Your task to perform on an android device: Open Maps and search for coffee Image 0: 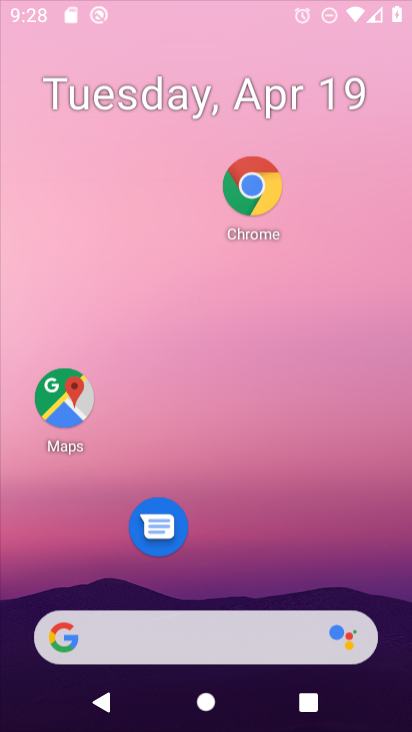
Step 0: click (266, 216)
Your task to perform on an android device: Open Maps and search for coffee Image 1: 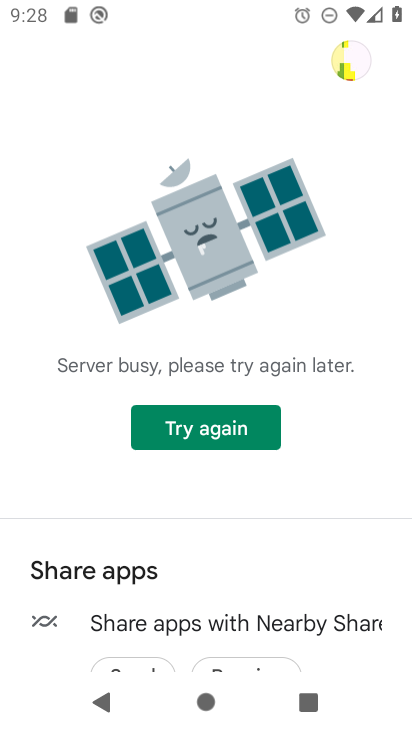
Step 1: press home button
Your task to perform on an android device: Open Maps and search for coffee Image 2: 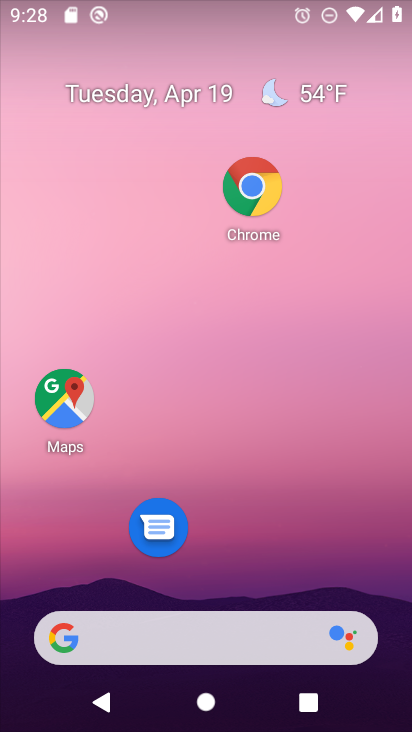
Step 2: drag from (230, 573) to (238, 99)
Your task to perform on an android device: Open Maps and search for coffee Image 3: 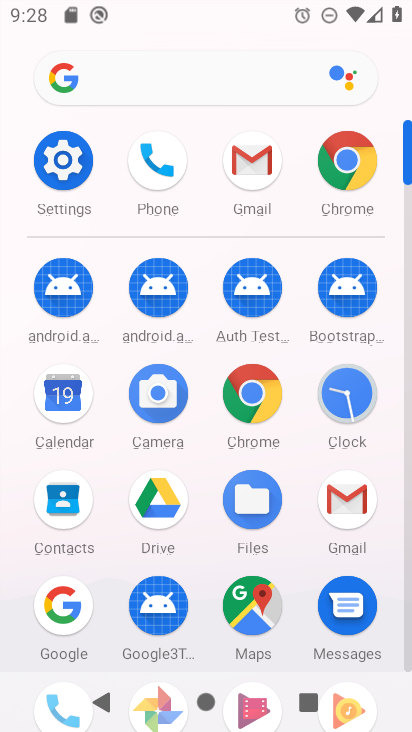
Step 3: click (244, 607)
Your task to perform on an android device: Open Maps and search for coffee Image 4: 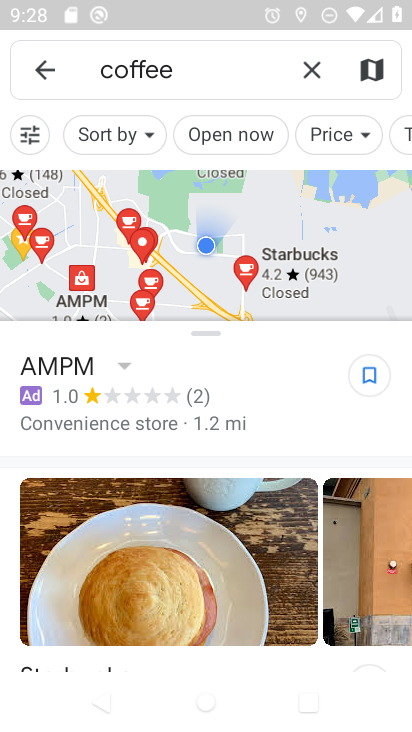
Step 4: click (310, 62)
Your task to perform on an android device: Open Maps and search for coffee Image 5: 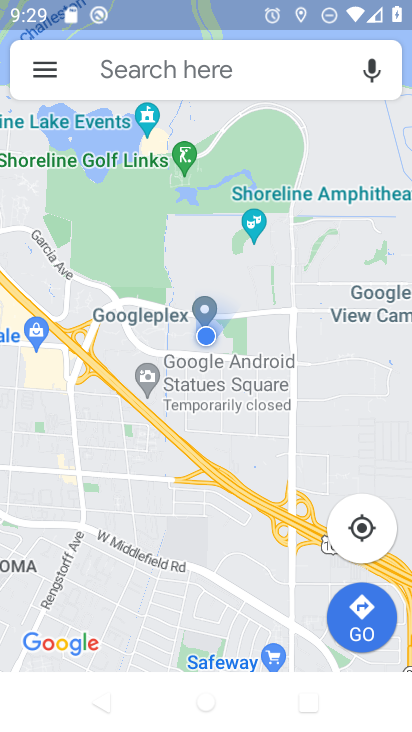
Step 5: click (218, 55)
Your task to perform on an android device: Open Maps and search for coffee Image 6: 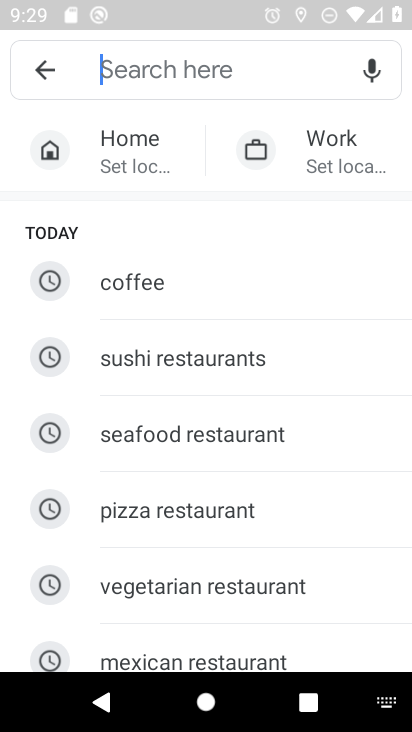
Step 6: type "coffee"
Your task to perform on an android device: Open Maps and search for coffee Image 7: 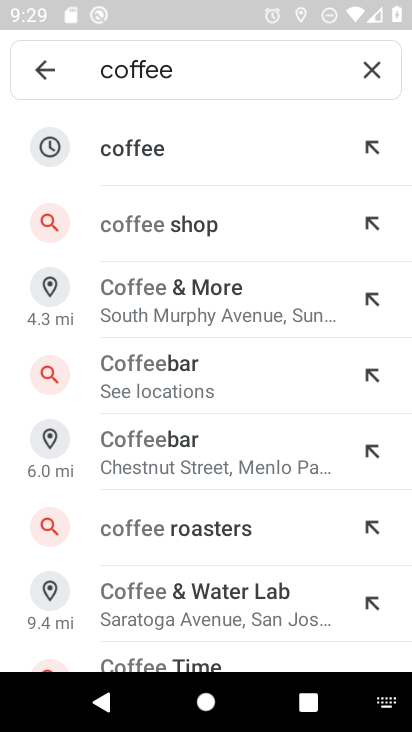
Step 7: click (158, 163)
Your task to perform on an android device: Open Maps and search for coffee Image 8: 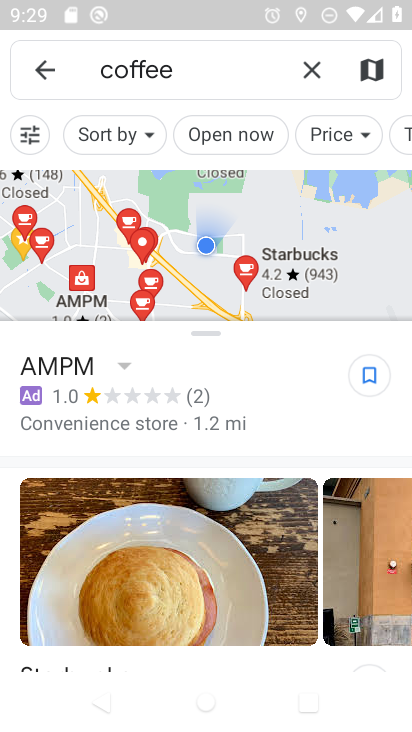
Step 8: task complete